Your task to perform on an android device: When is my next meeting? Image 0: 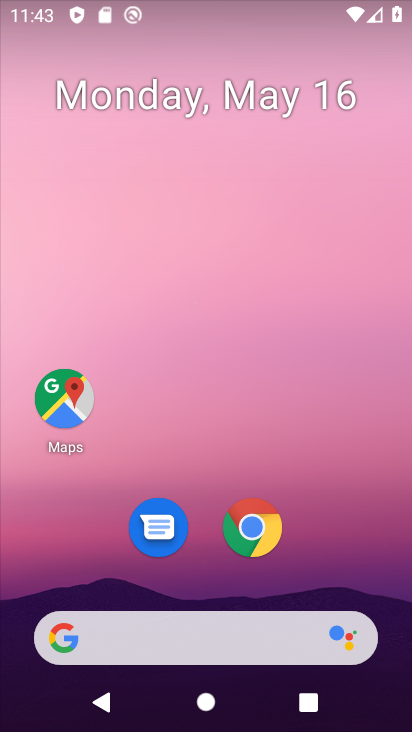
Step 0: drag from (193, 625) to (290, 149)
Your task to perform on an android device: When is my next meeting? Image 1: 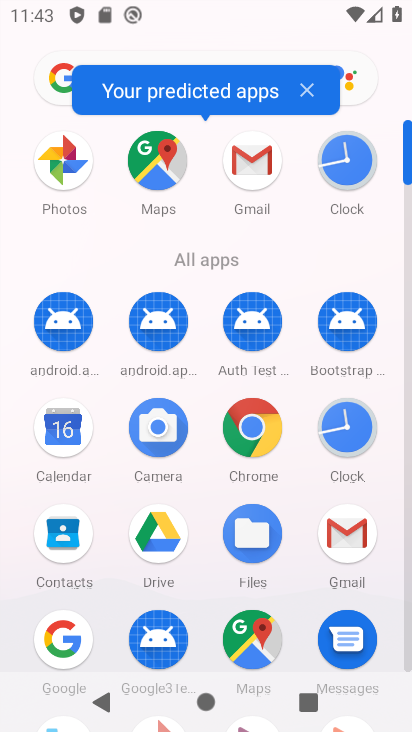
Step 1: click (75, 429)
Your task to perform on an android device: When is my next meeting? Image 2: 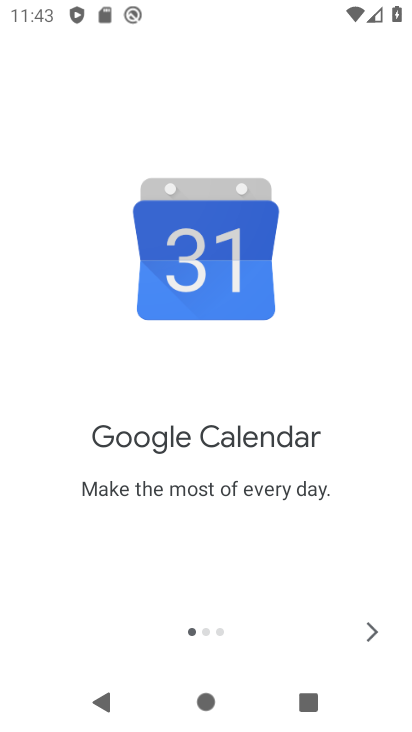
Step 2: click (369, 635)
Your task to perform on an android device: When is my next meeting? Image 3: 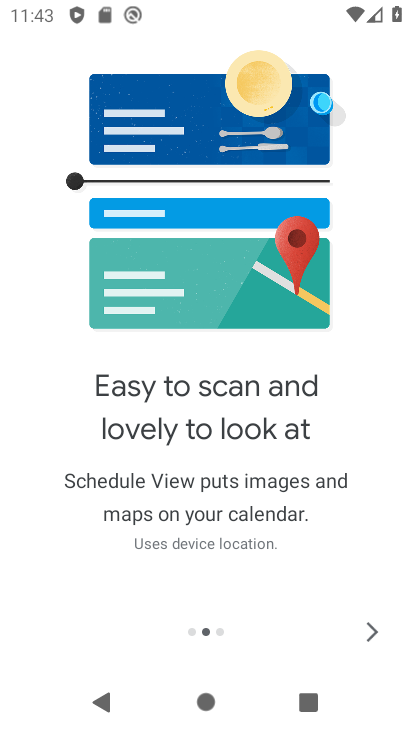
Step 3: click (369, 635)
Your task to perform on an android device: When is my next meeting? Image 4: 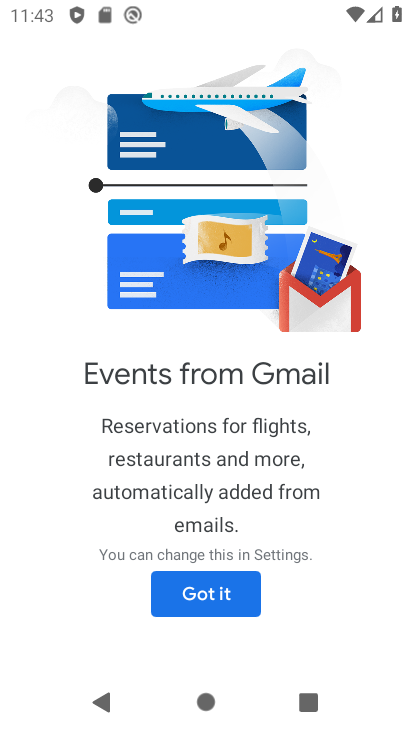
Step 4: click (226, 599)
Your task to perform on an android device: When is my next meeting? Image 5: 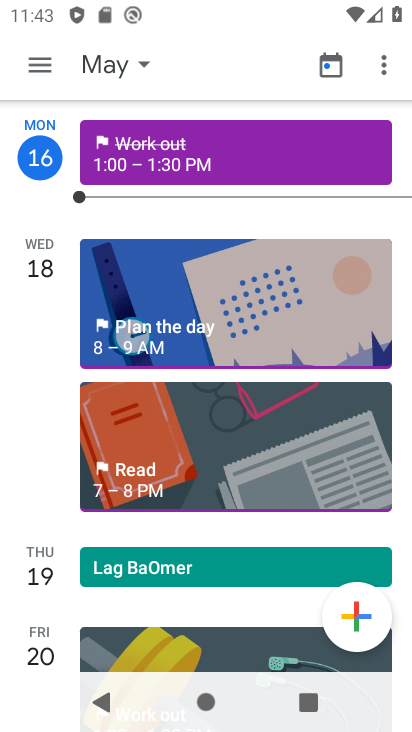
Step 5: drag from (159, 518) to (239, 173)
Your task to perform on an android device: When is my next meeting? Image 6: 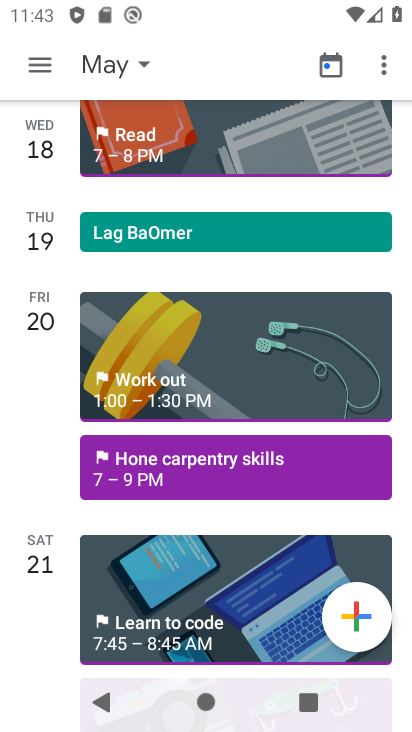
Step 6: click (182, 479)
Your task to perform on an android device: When is my next meeting? Image 7: 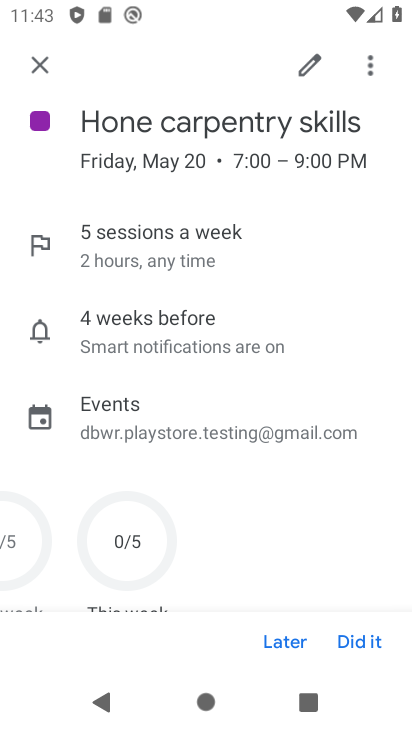
Step 7: task complete